Your task to perform on an android device: turn pop-ups off in chrome Image 0: 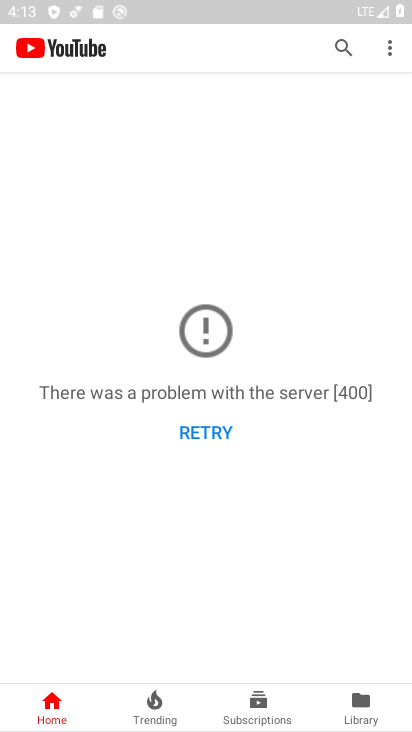
Step 0: press home button
Your task to perform on an android device: turn pop-ups off in chrome Image 1: 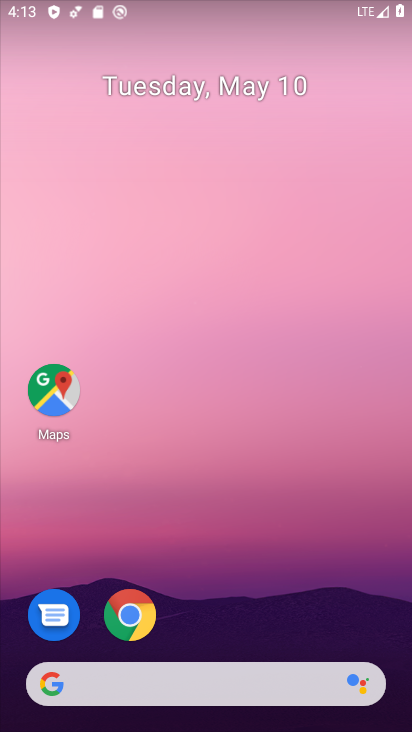
Step 1: click (129, 628)
Your task to perform on an android device: turn pop-ups off in chrome Image 2: 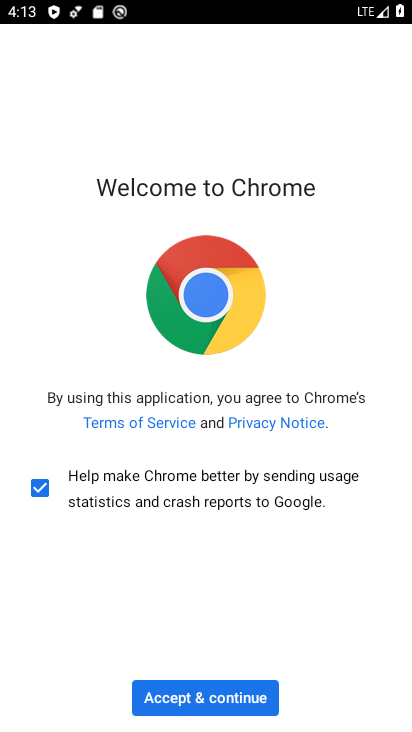
Step 2: click (191, 689)
Your task to perform on an android device: turn pop-ups off in chrome Image 3: 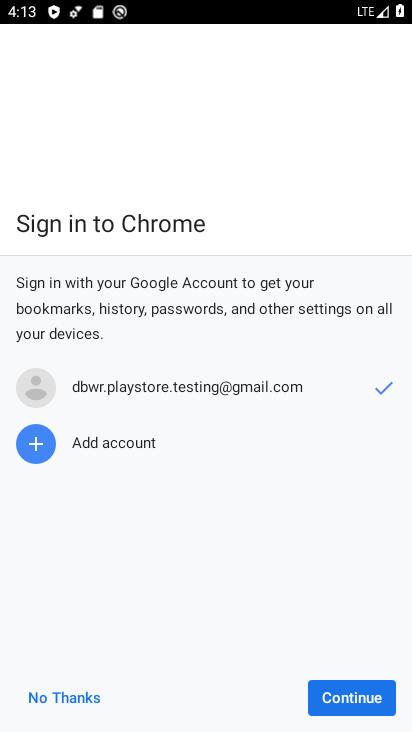
Step 3: click (345, 698)
Your task to perform on an android device: turn pop-ups off in chrome Image 4: 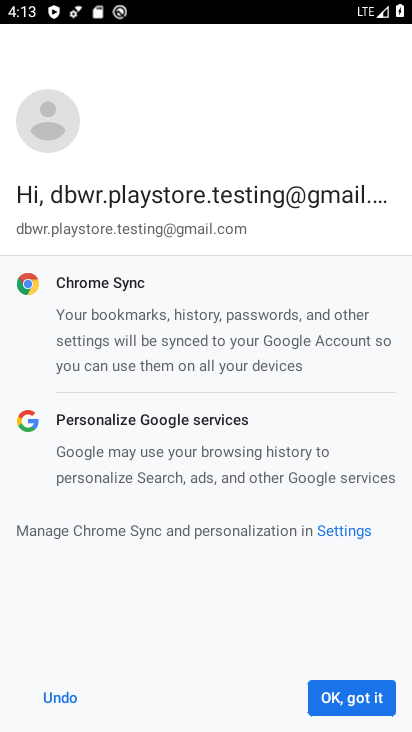
Step 4: click (329, 714)
Your task to perform on an android device: turn pop-ups off in chrome Image 5: 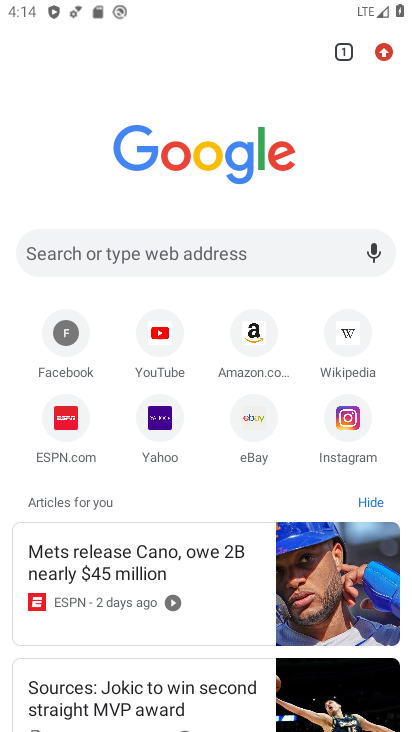
Step 5: click (387, 57)
Your task to perform on an android device: turn pop-ups off in chrome Image 6: 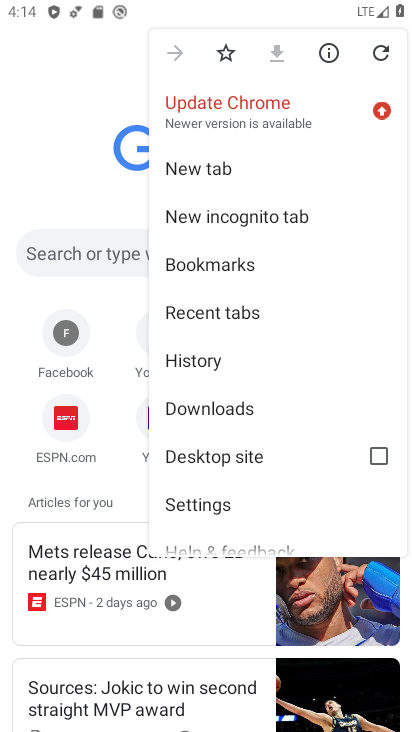
Step 6: click (224, 502)
Your task to perform on an android device: turn pop-ups off in chrome Image 7: 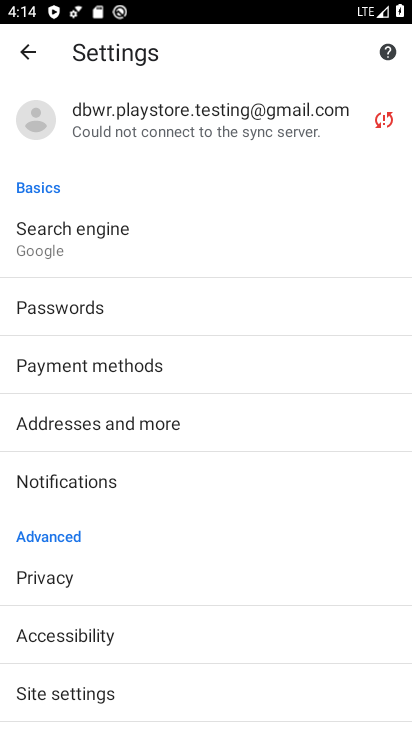
Step 7: click (176, 712)
Your task to perform on an android device: turn pop-ups off in chrome Image 8: 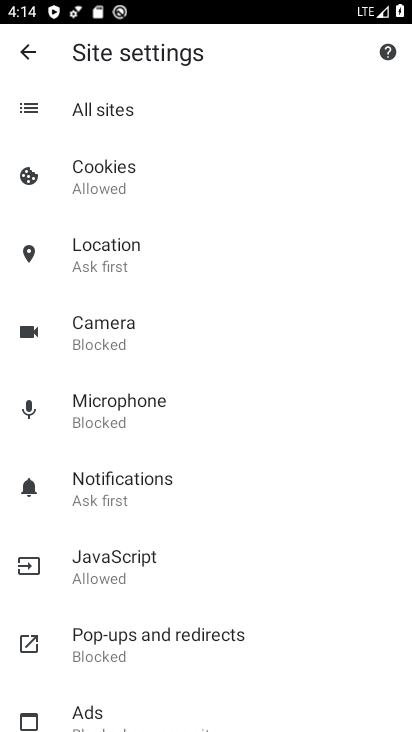
Step 8: click (181, 639)
Your task to perform on an android device: turn pop-ups off in chrome Image 9: 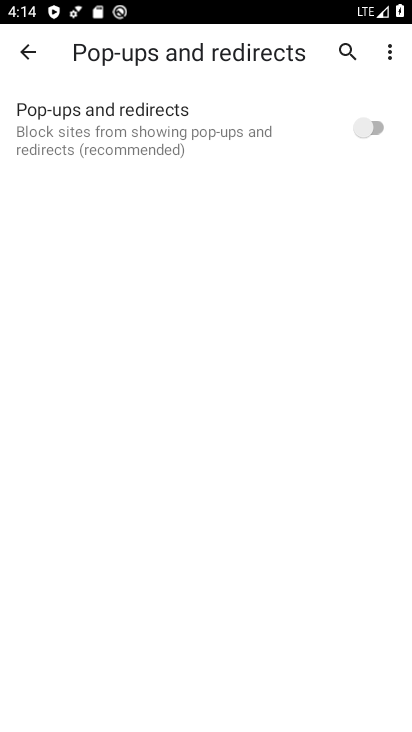
Step 9: task complete